Your task to perform on an android device: change the clock display to digital Image 0: 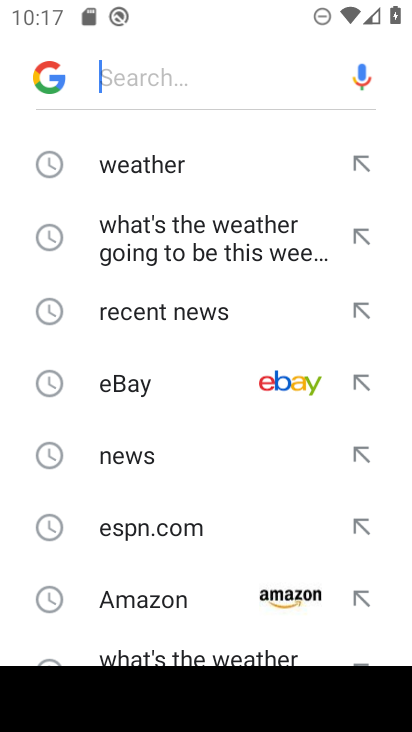
Step 0: press back button
Your task to perform on an android device: change the clock display to digital Image 1: 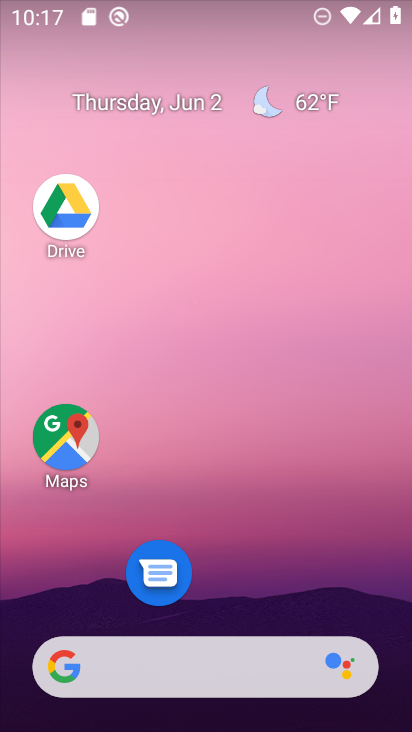
Step 1: drag from (220, 607) to (209, 77)
Your task to perform on an android device: change the clock display to digital Image 2: 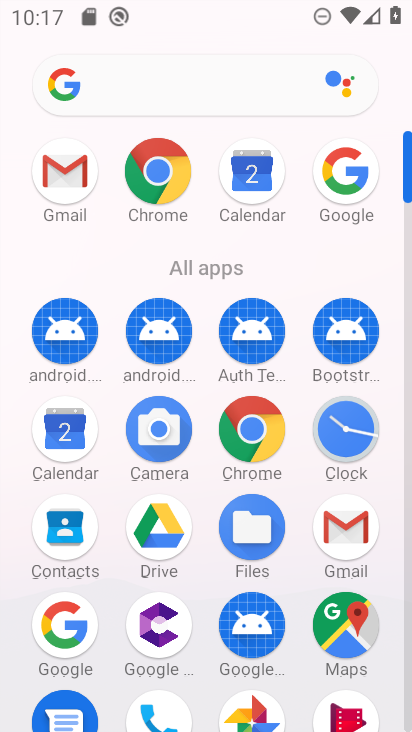
Step 2: click (344, 429)
Your task to perform on an android device: change the clock display to digital Image 3: 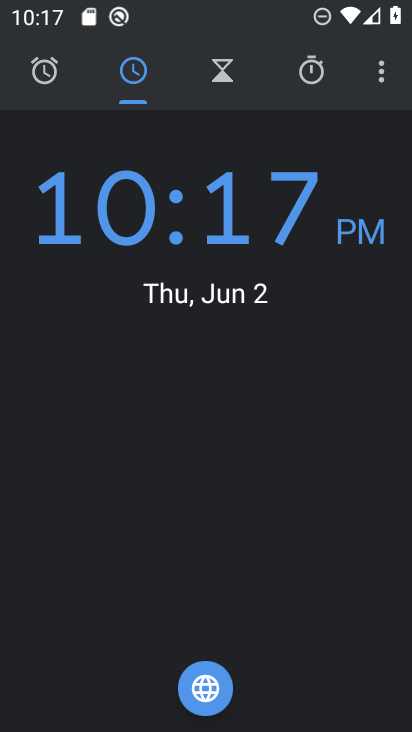
Step 3: drag from (381, 77) to (261, 148)
Your task to perform on an android device: change the clock display to digital Image 4: 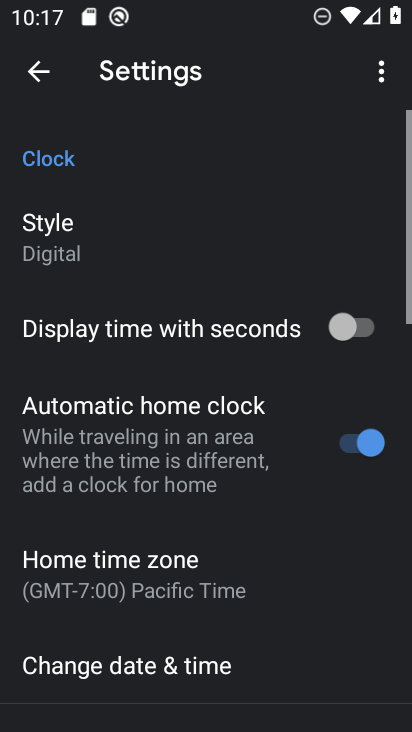
Step 4: click (76, 220)
Your task to perform on an android device: change the clock display to digital Image 5: 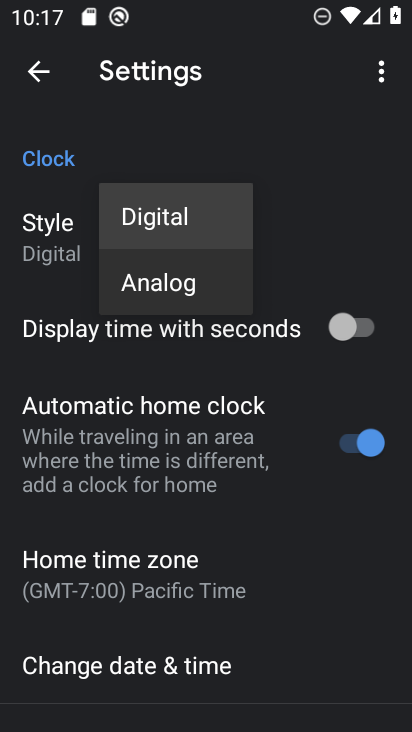
Step 5: click (129, 220)
Your task to perform on an android device: change the clock display to digital Image 6: 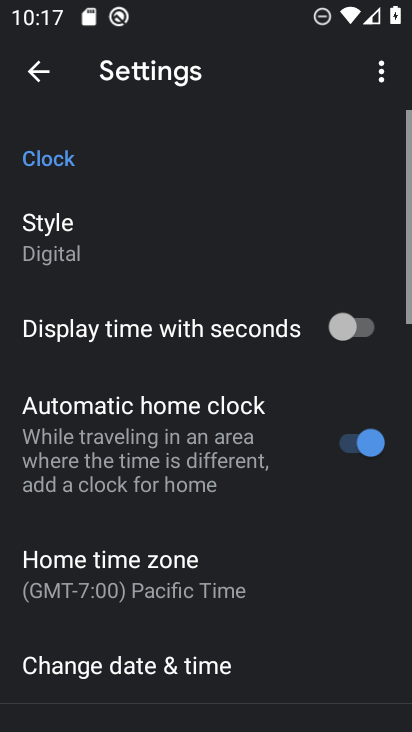
Step 6: task complete